Your task to perform on an android device: Open ESPN.com Image 0: 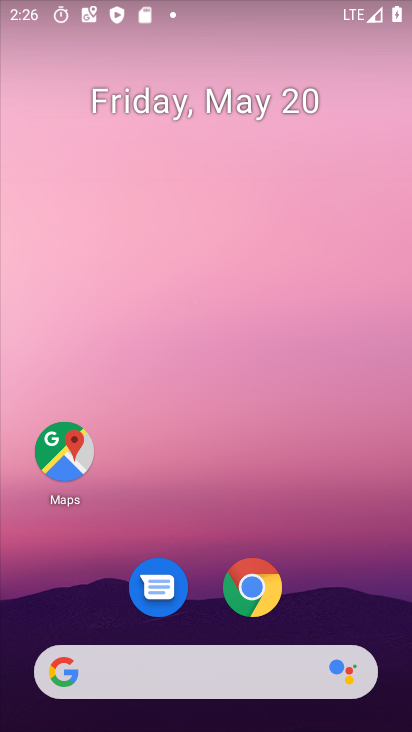
Step 0: click (255, 596)
Your task to perform on an android device: Open ESPN.com Image 1: 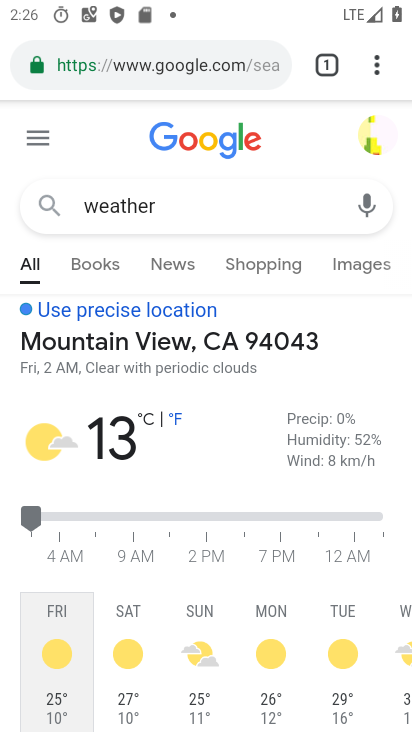
Step 1: click (150, 75)
Your task to perform on an android device: Open ESPN.com Image 2: 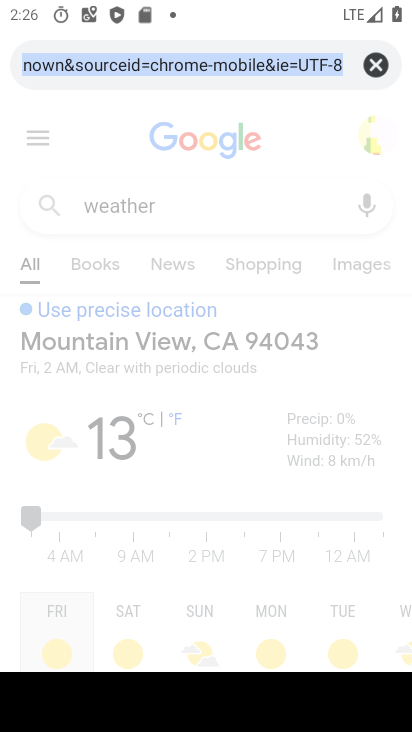
Step 2: type "espn.com"
Your task to perform on an android device: Open ESPN.com Image 3: 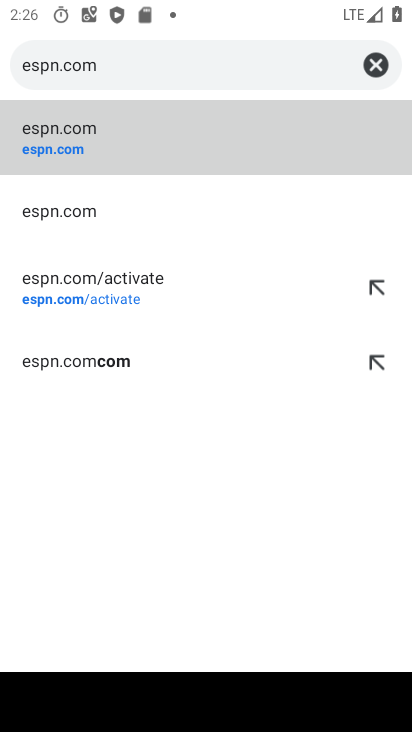
Step 3: click (41, 148)
Your task to perform on an android device: Open ESPN.com Image 4: 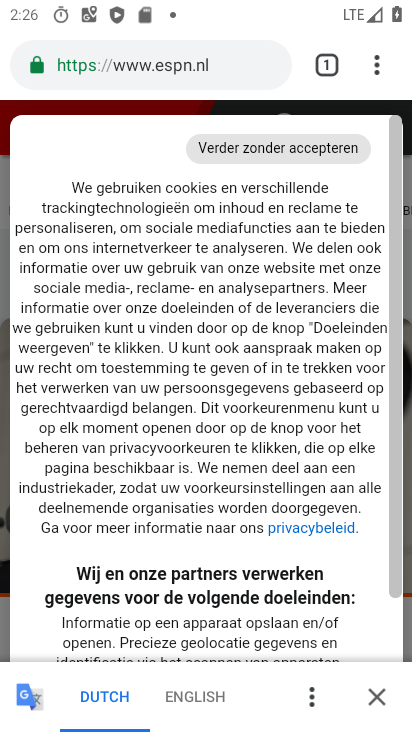
Step 4: task complete